Your task to perform on an android device: set default search engine in the chrome app Image 0: 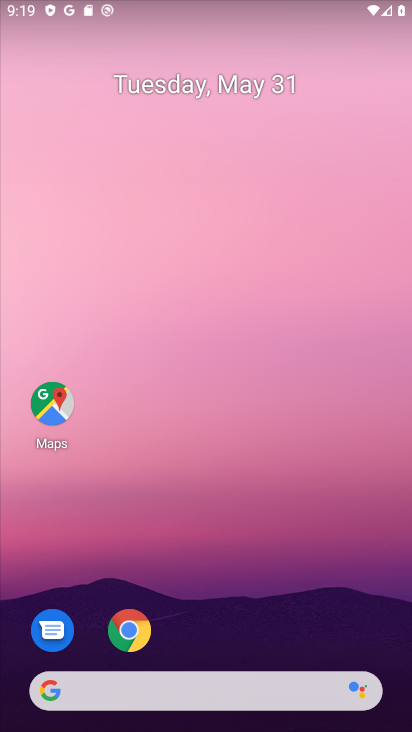
Step 0: click (117, 628)
Your task to perform on an android device: set default search engine in the chrome app Image 1: 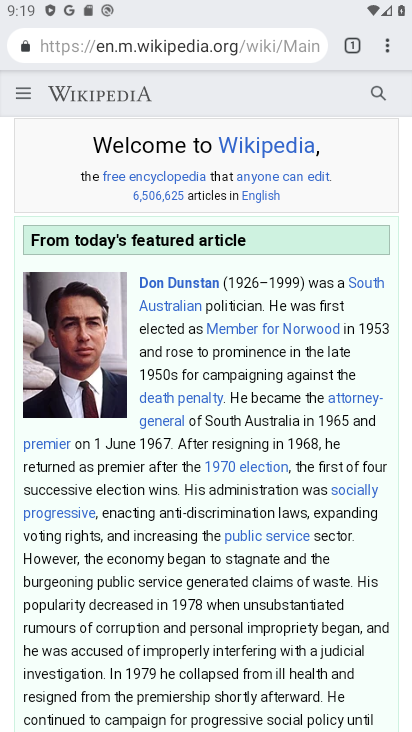
Step 1: click (387, 50)
Your task to perform on an android device: set default search engine in the chrome app Image 2: 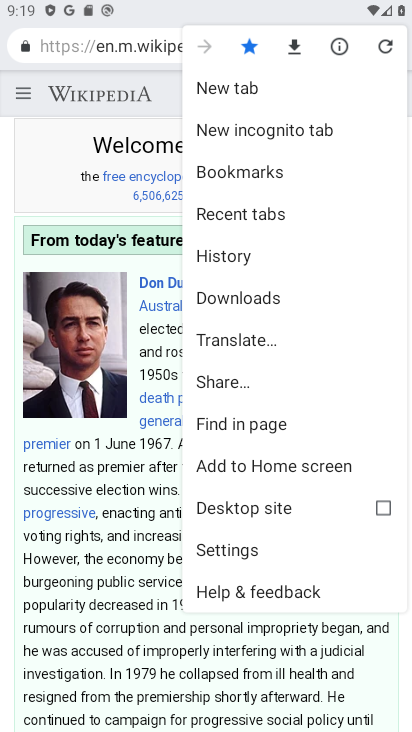
Step 2: click (249, 548)
Your task to perform on an android device: set default search engine in the chrome app Image 3: 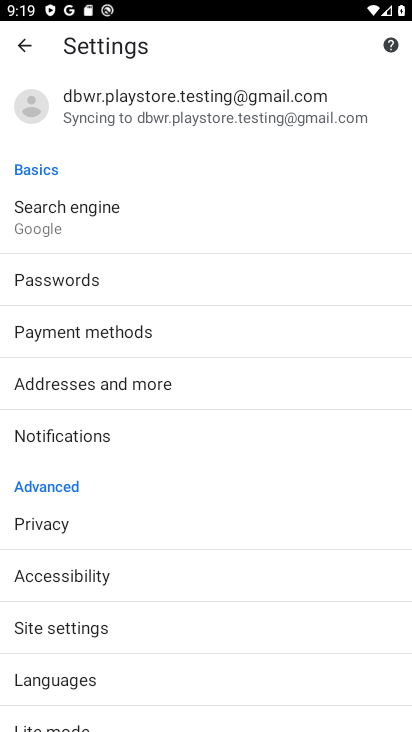
Step 3: click (82, 236)
Your task to perform on an android device: set default search engine in the chrome app Image 4: 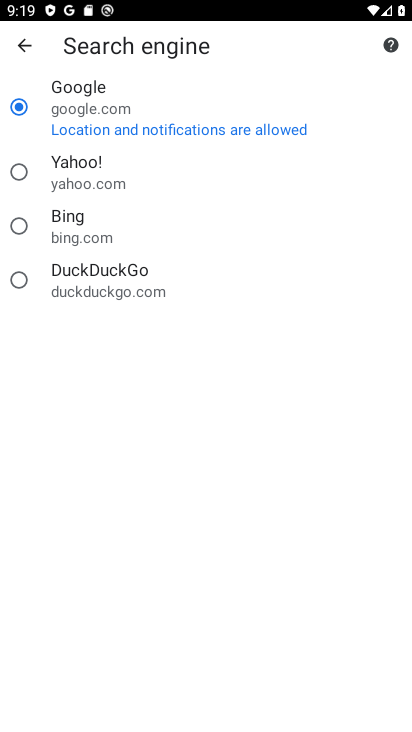
Step 4: click (72, 238)
Your task to perform on an android device: set default search engine in the chrome app Image 5: 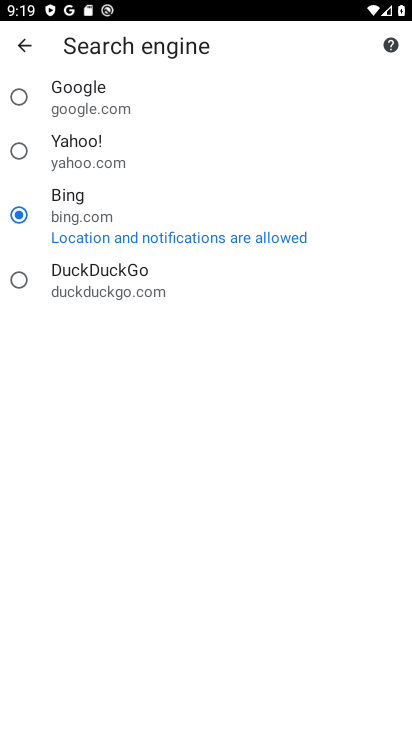
Step 5: task complete